Your task to perform on an android device: toggle data saver in the chrome app Image 0: 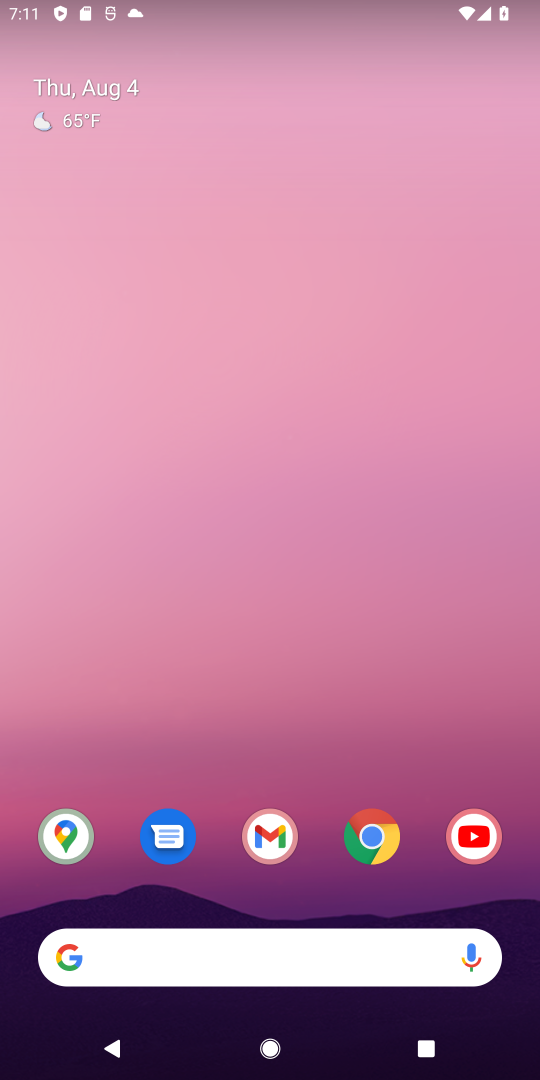
Step 0: click (377, 835)
Your task to perform on an android device: toggle data saver in the chrome app Image 1: 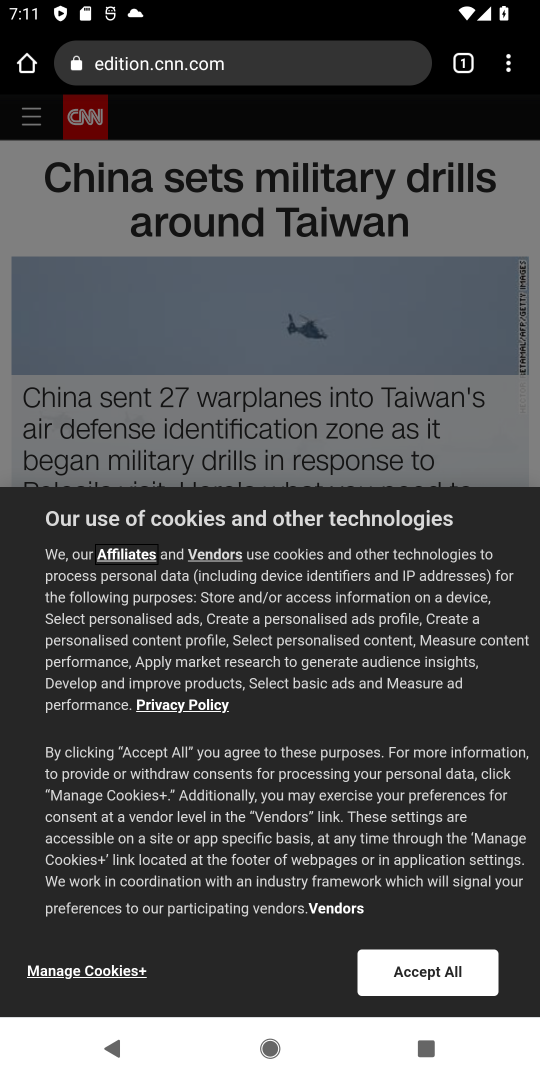
Step 1: drag from (507, 73) to (328, 818)
Your task to perform on an android device: toggle data saver in the chrome app Image 2: 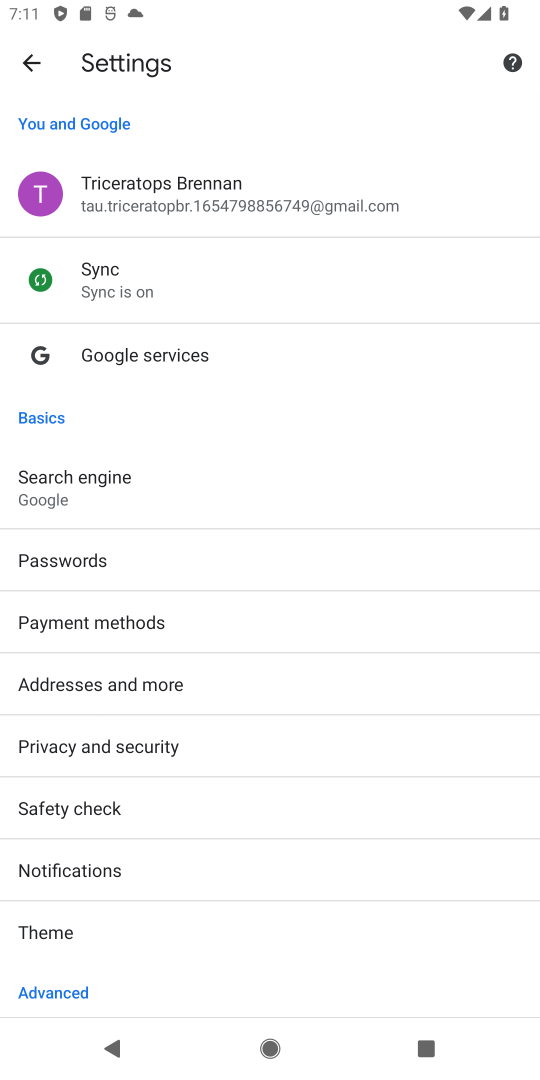
Step 2: drag from (128, 926) to (266, 72)
Your task to perform on an android device: toggle data saver in the chrome app Image 3: 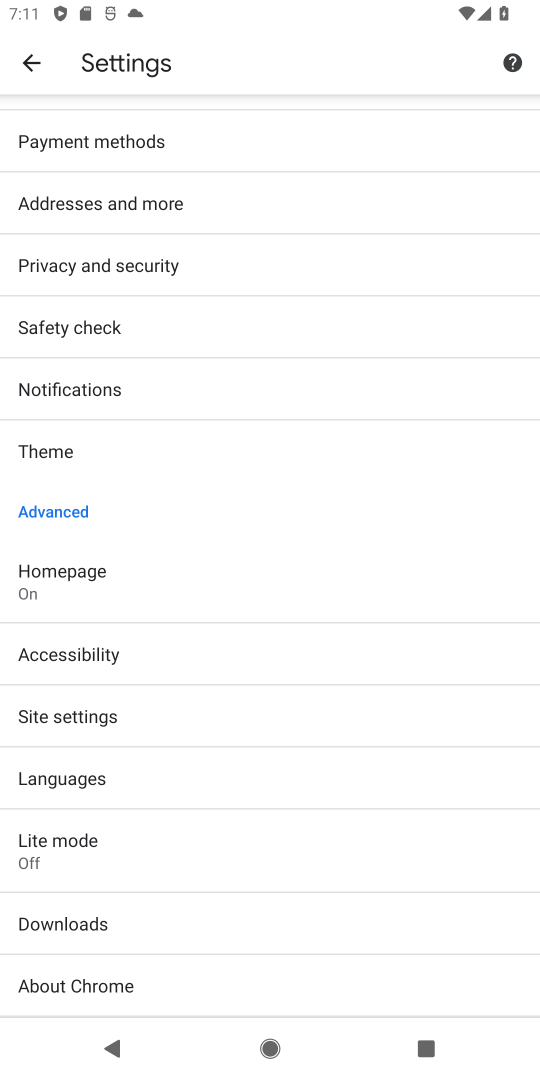
Step 3: click (103, 853)
Your task to perform on an android device: toggle data saver in the chrome app Image 4: 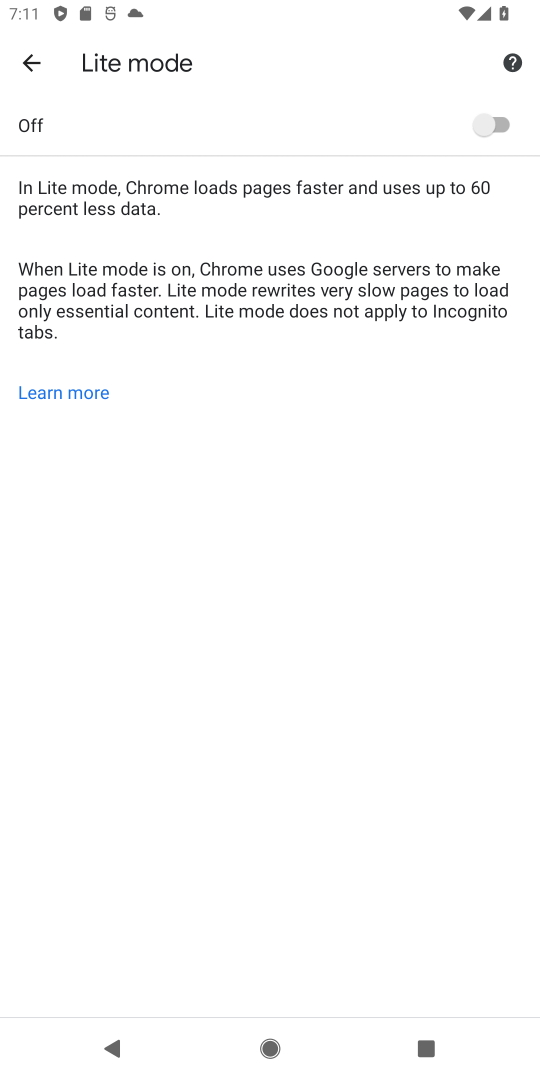
Step 4: click (494, 117)
Your task to perform on an android device: toggle data saver in the chrome app Image 5: 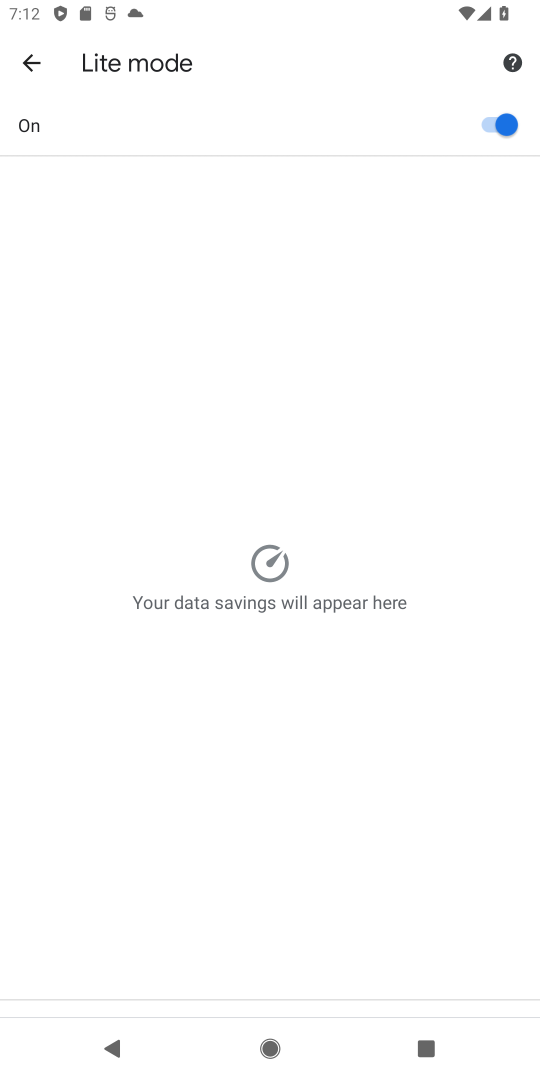
Step 5: task complete